Your task to perform on an android device: turn off notifications in google photos Image 0: 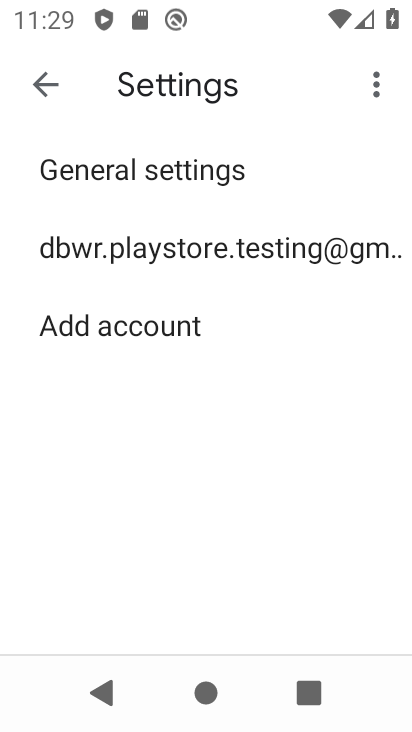
Step 0: press back button
Your task to perform on an android device: turn off notifications in google photos Image 1: 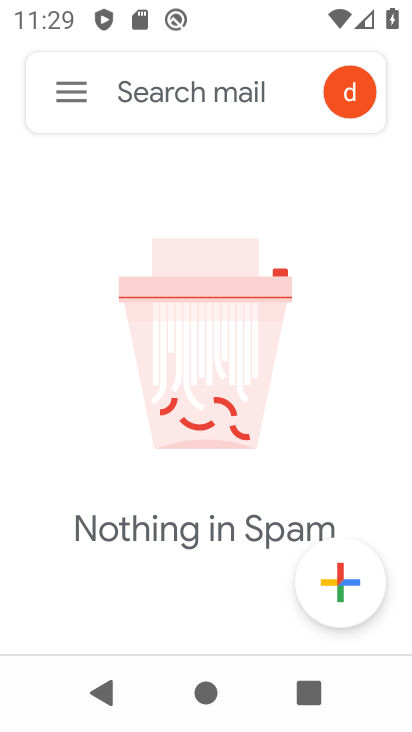
Step 1: press home button
Your task to perform on an android device: turn off notifications in google photos Image 2: 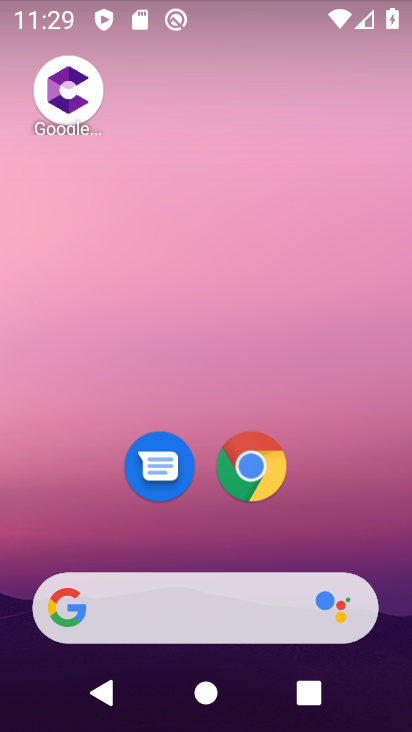
Step 2: drag from (329, 533) to (261, 5)
Your task to perform on an android device: turn off notifications in google photos Image 3: 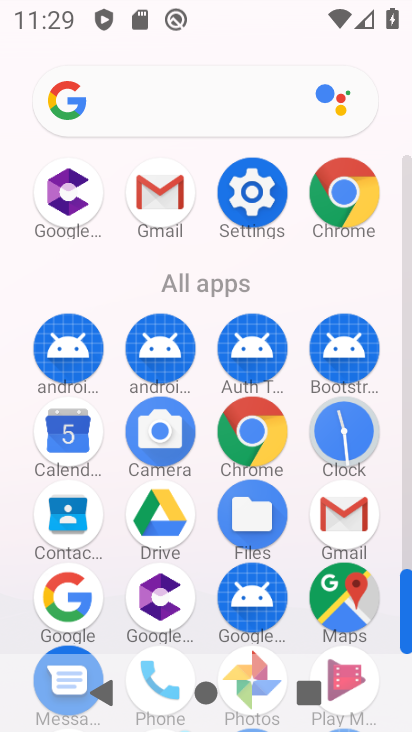
Step 3: drag from (0, 570) to (19, 252)
Your task to perform on an android device: turn off notifications in google photos Image 4: 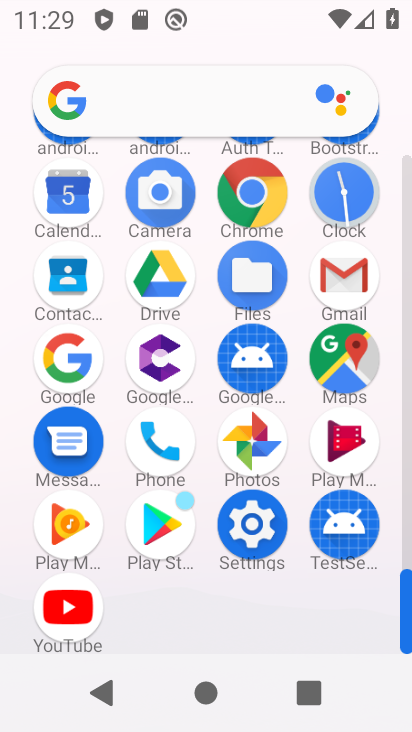
Step 4: click (261, 440)
Your task to perform on an android device: turn off notifications in google photos Image 5: 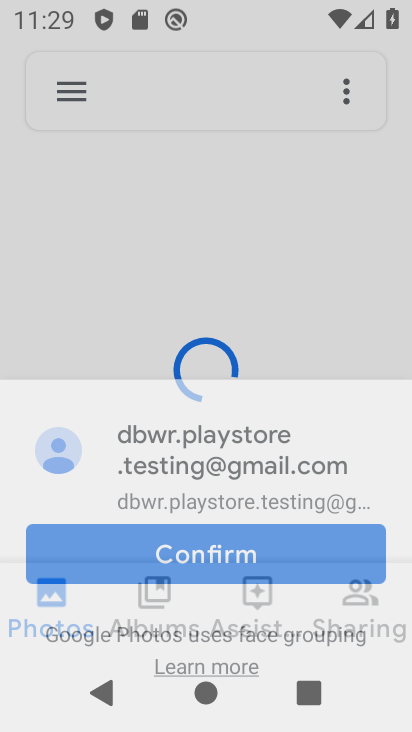
Step 5: click (74, 90)
Your task to perform on an android device: turn off notifications in google photos Image 6: 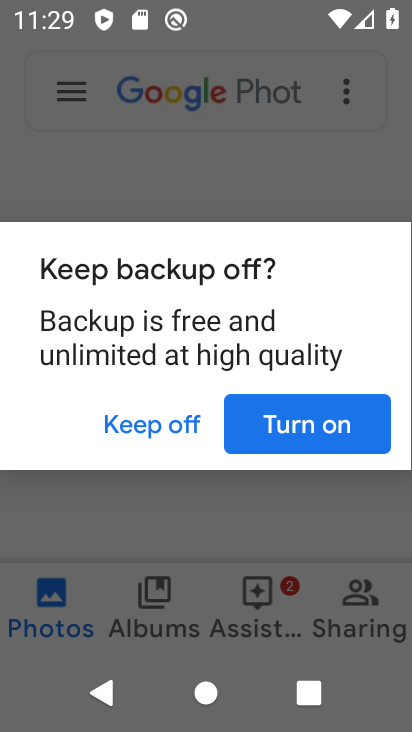
Step 6: click (277, 425)
Your task to perform on an android device: turn off notifications in google photos Image 7: 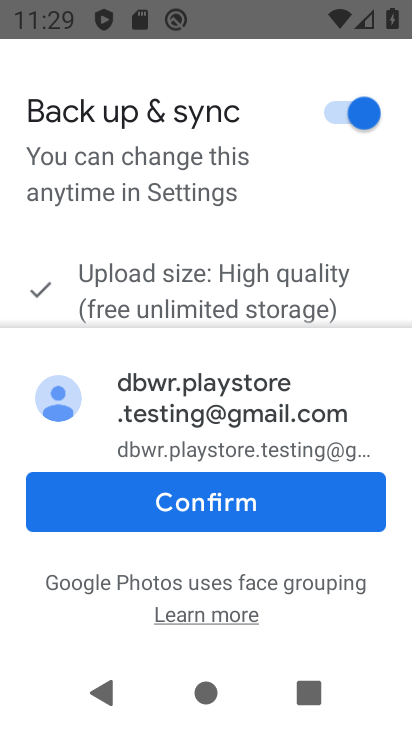
Step 7: click (187, 488)
Your task to perform on an android device: turn off notifications in google photos Image 8: 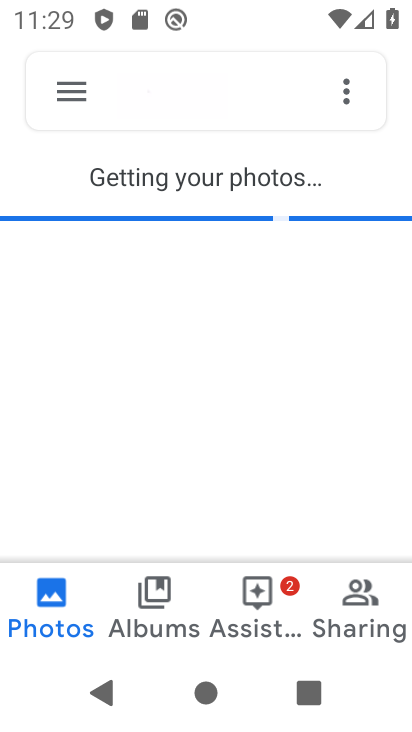
Step 8: click (65, 88)
Your task to perform on an android device: turn off notifications in google photos Image 9: 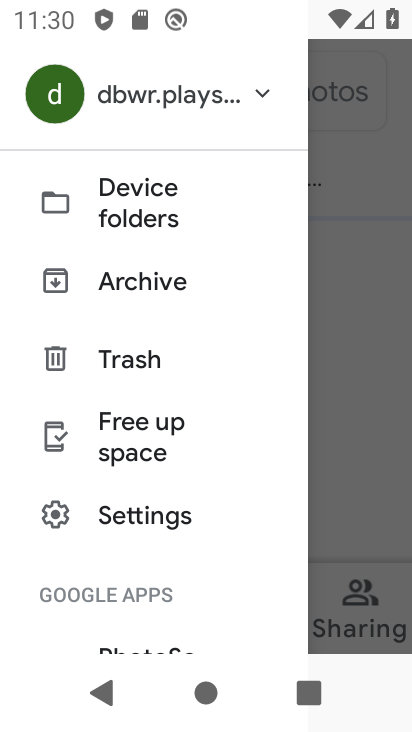
Step 9: click (174, 493)
Your task to perform on an android device: turn off notifications in google photos Image 10: 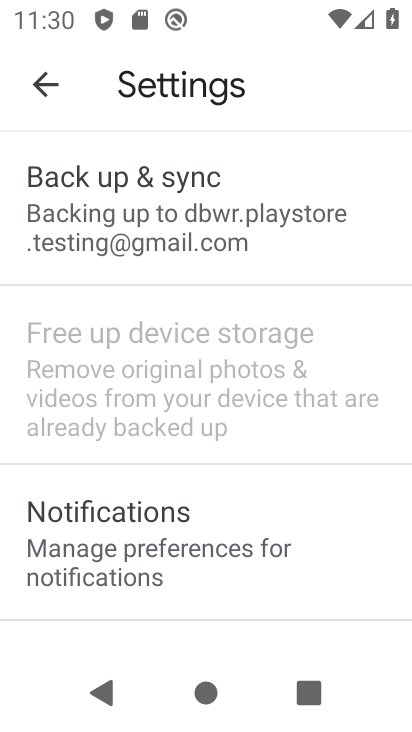
Step 10: click (174, 496)
Your task to perform on an android device: turn off notifications in google photos Image 11: 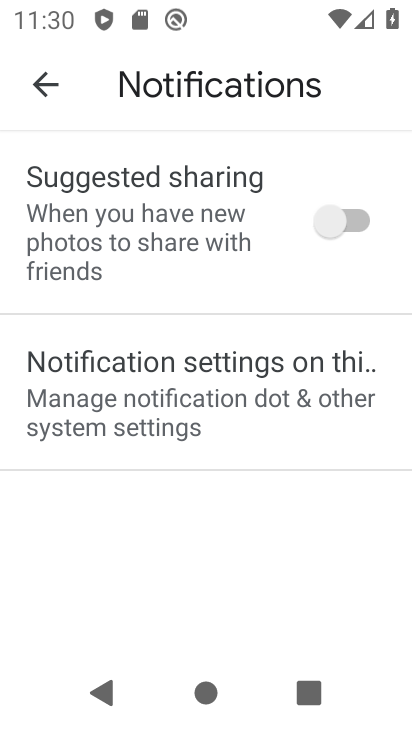
Step 11: click (219, 414)
Your task to perform on an android device: turn off notifications in google photos Image 12: 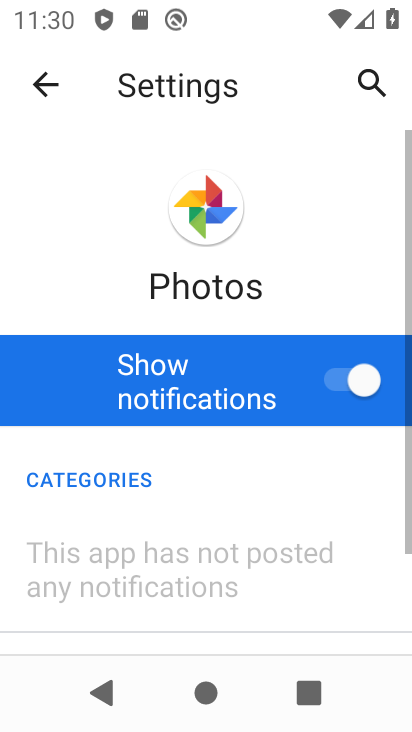
Step 12: click (365, 383)
Your task to perform on an android device: turn off notifications in google photos Image 13: 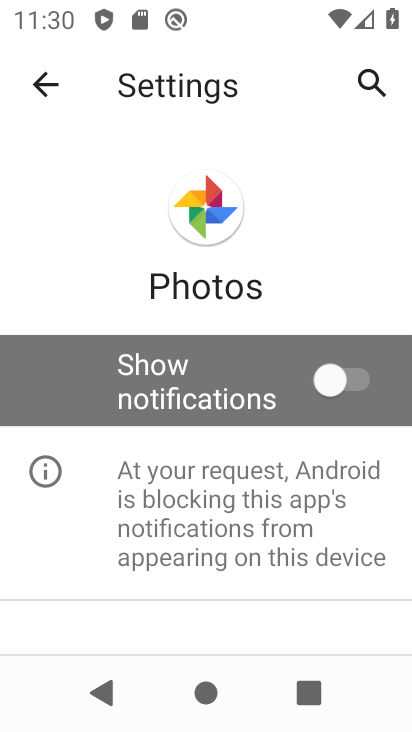
Step 13: task complete